Your task to perform on an android device: Go to accessibility settings Image 0: 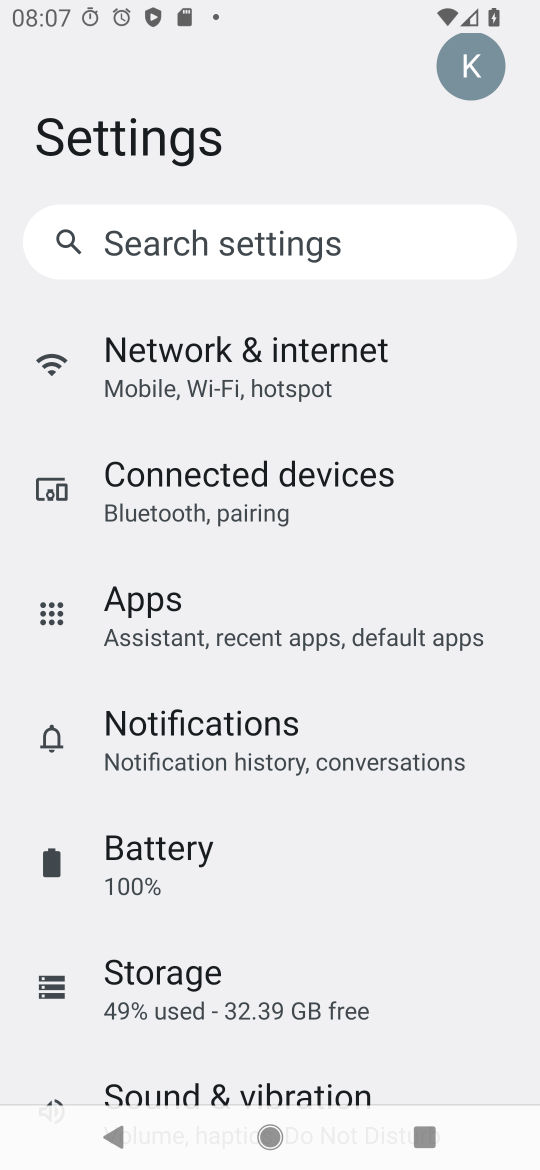
Step 0: press home button
Your task to perform on an android device: Go to accessibility settings Image 1: 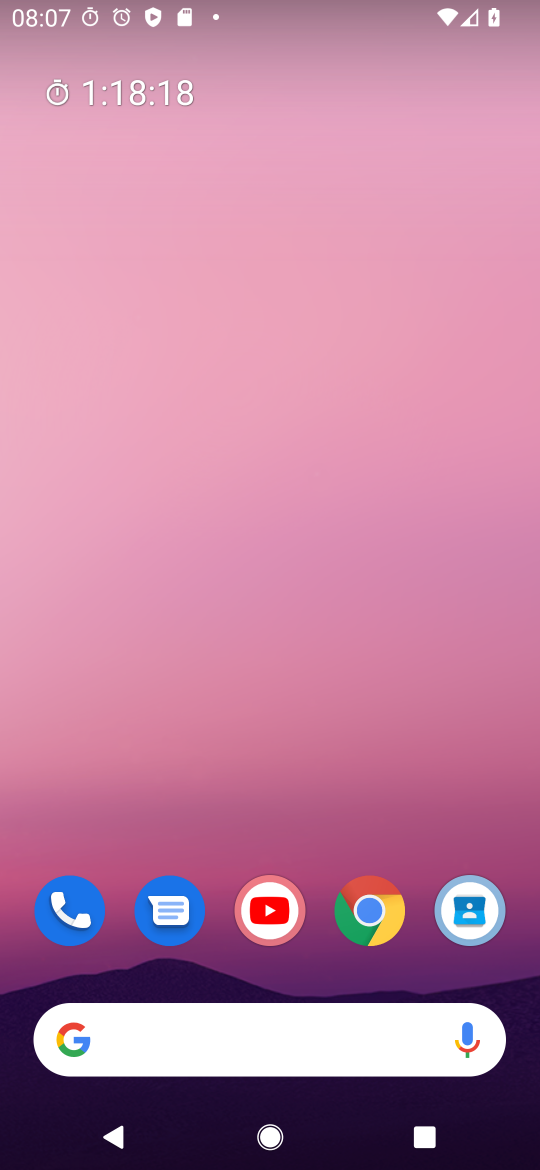
Step 1: drag from (147, 908) to (175, 281)
Your task to perform on an android device: Go to accessibility settings Image 2: 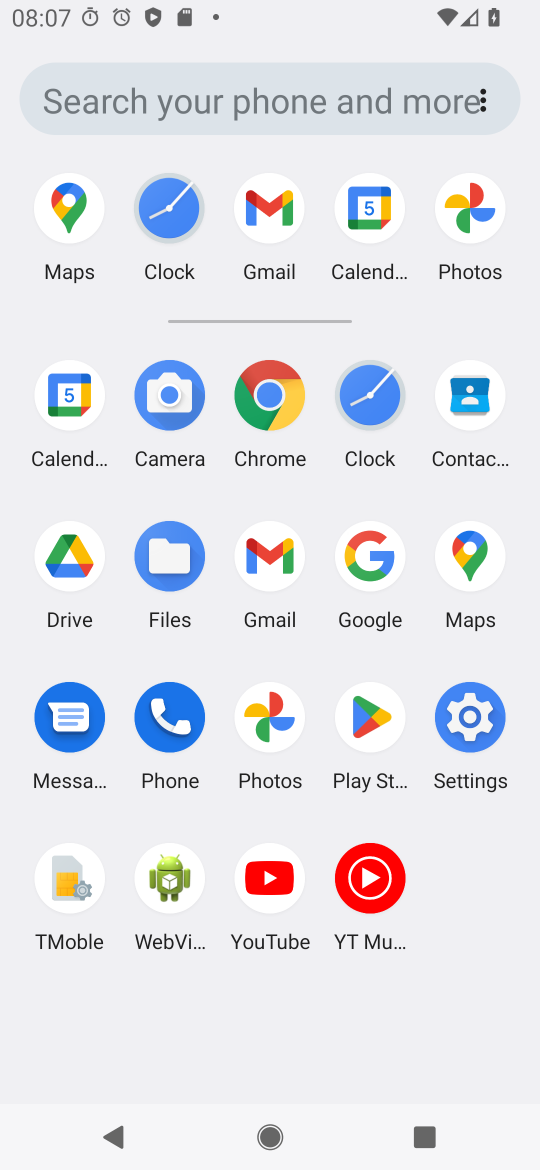
Step 2: click (488, 726)
Your task to perform on an android device: Go to accessibility settings Image 3: 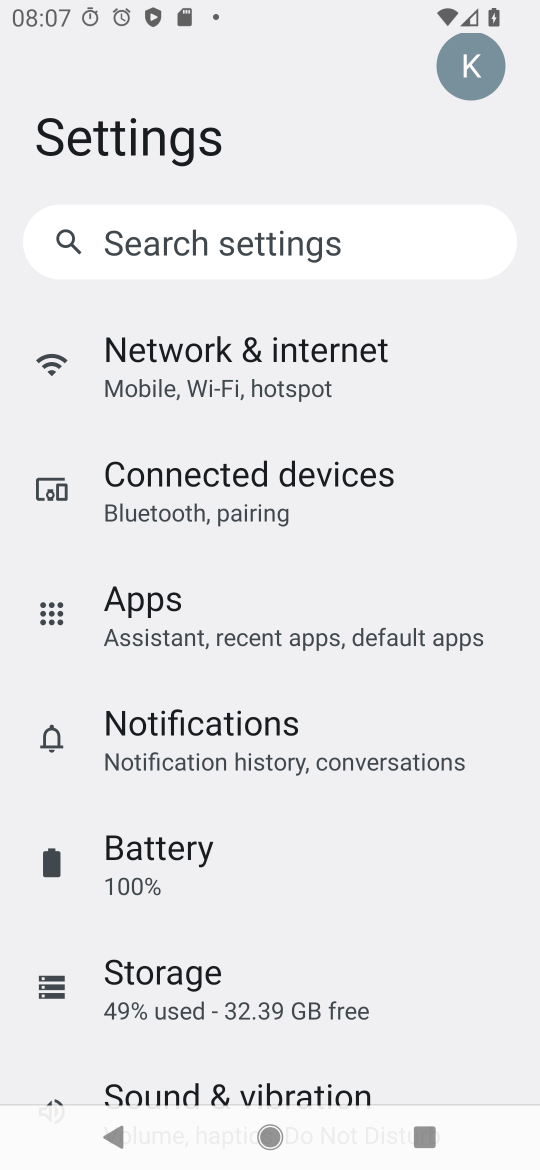
Step 3: drag from (319, 936) to (342, 572)
Your task to perform on an android device: Go to accessibility settings Image 4: 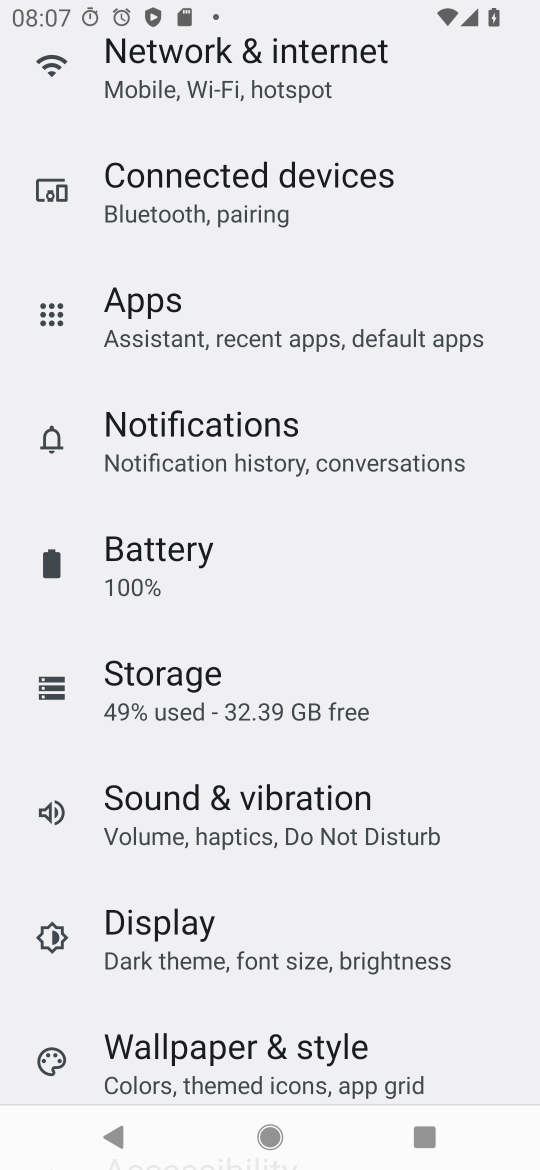
Step 4: drag from (308, 917) to (326, 77)
Your task to perform on an android device: Go to accessibility settings Image 5: 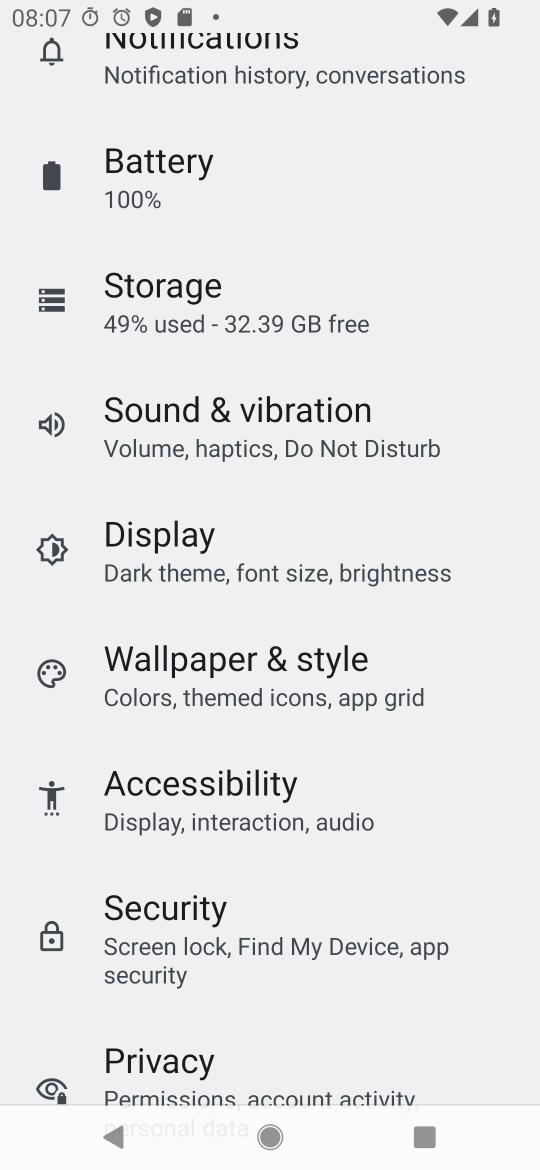
Step 5: click (230, 771)
Your task to perform on an android device: Go to accessibility settings Image 6: 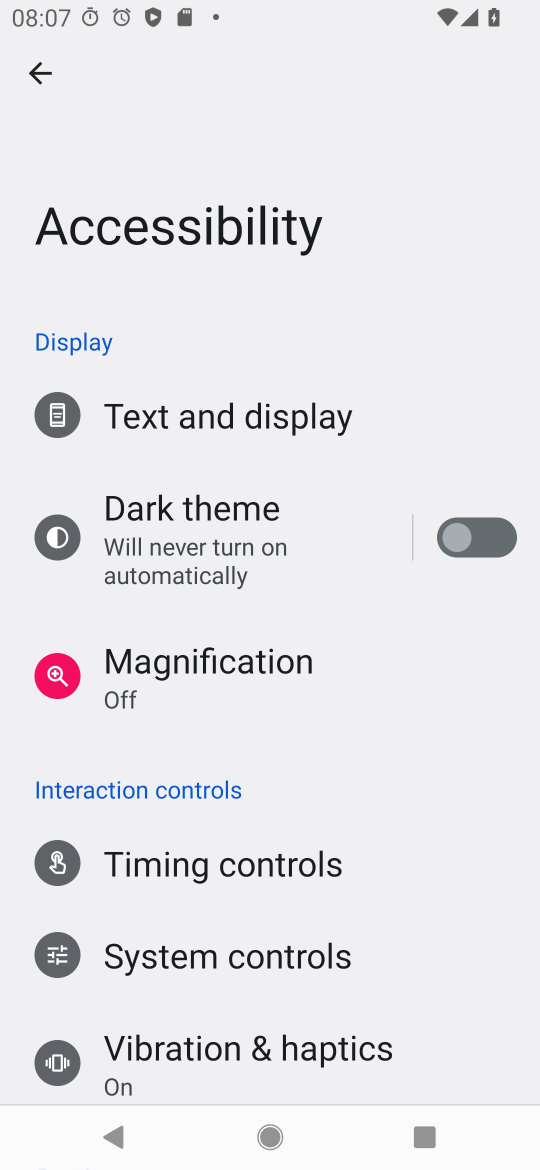
Step 6: task complete